Your task to perform on an android device: Open CNN.com Image 0: 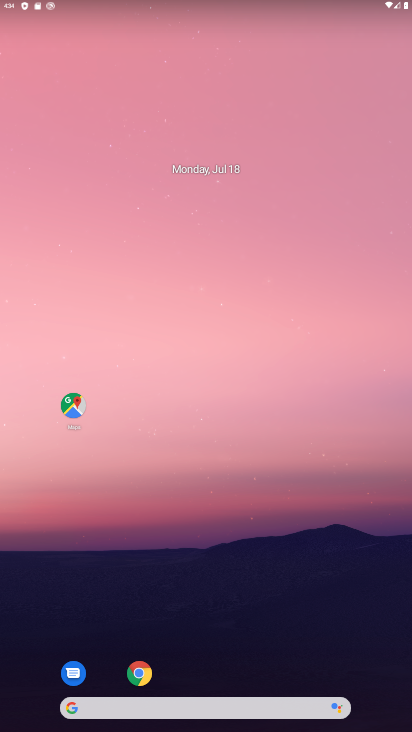
Step 0: click (146, 683)
Your task to perform on an android device: Open CNN.com Image 1: 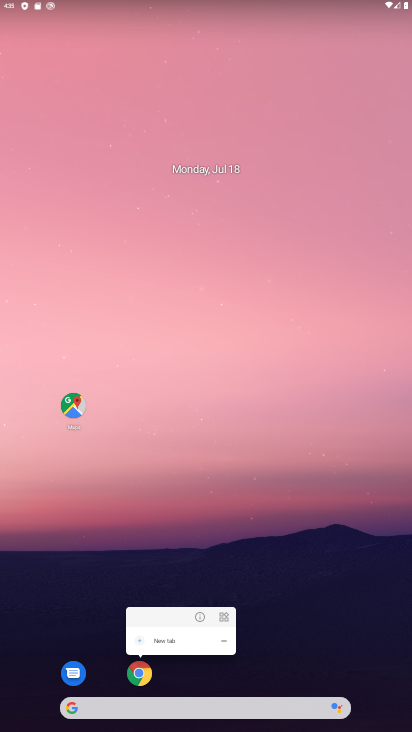
Step 1: click (140, 682)
Your task to perform on an android device: Open CNN.com Image 2: 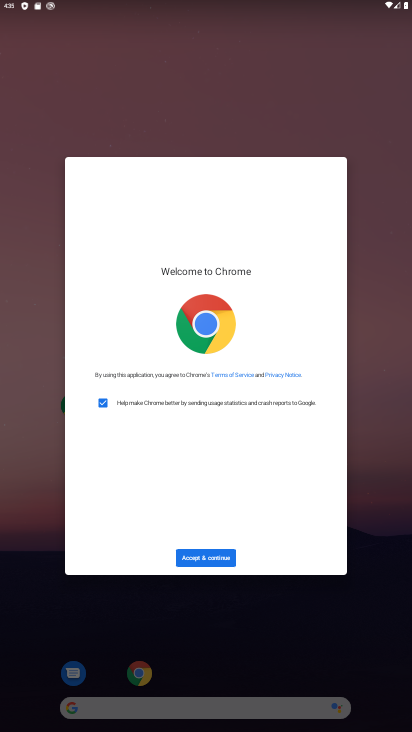
Step 2: click (220, 568)
Your task to perform on an android device: Open CNN.com Image 3: 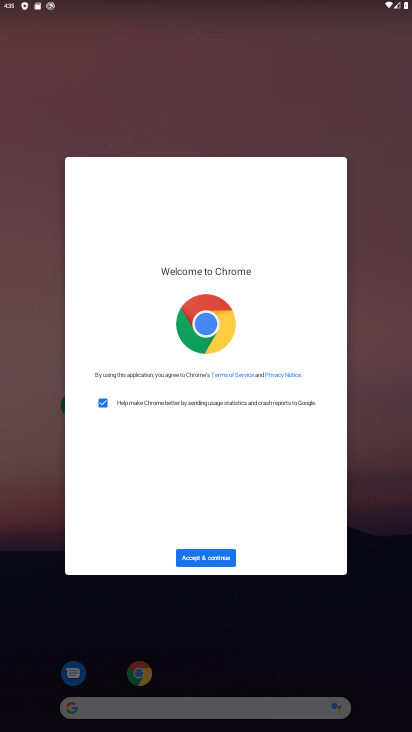
Step 3: click (222, 553)
Your task to perform on an android device: Open CNN.com Image 4: 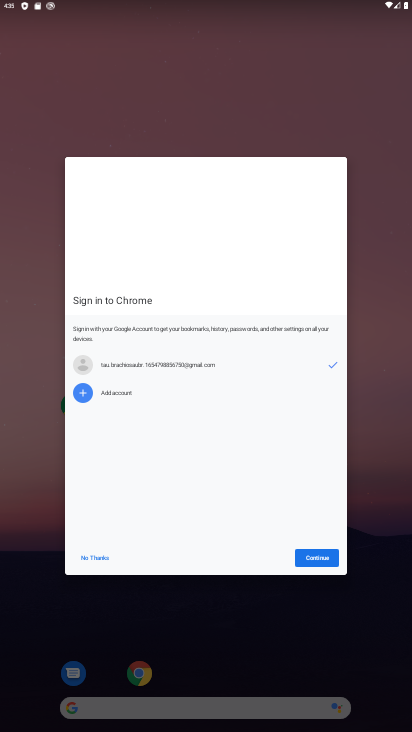
Step 4: click (318, 562)
Your task to perform on an android device: Open CNN.com Image 5: 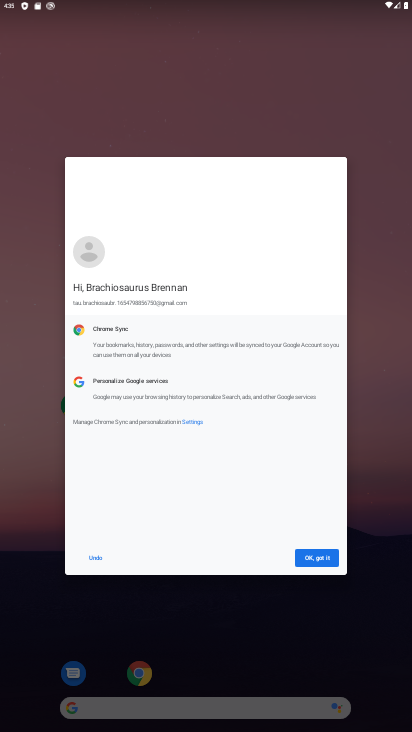
Step 5: click (318, 562)
Your task to perform on an android device: Open CNN.com Image 6: 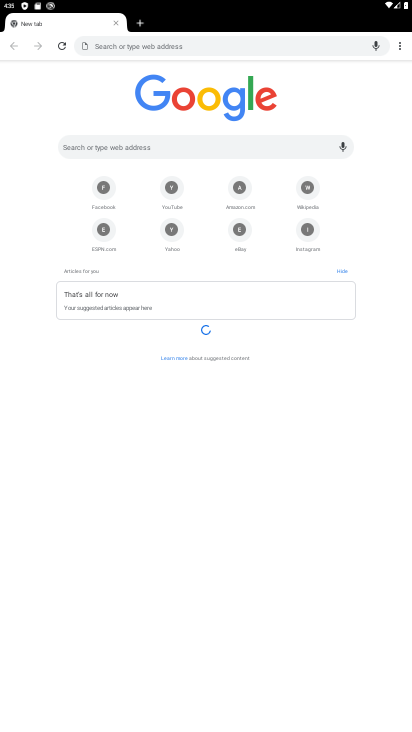
Step 6: click (170, 143)
Your task to perform on an android device: Open CNN.com Image 7: 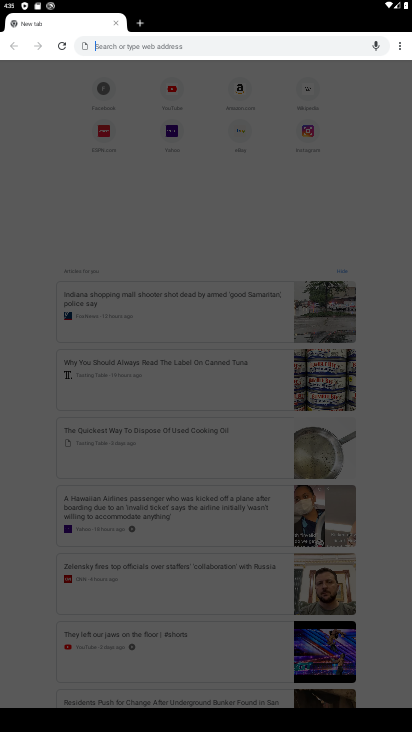
Step 7: type "CNN.com"
Your task to perform on an android device: Open CNN.com Image 8: 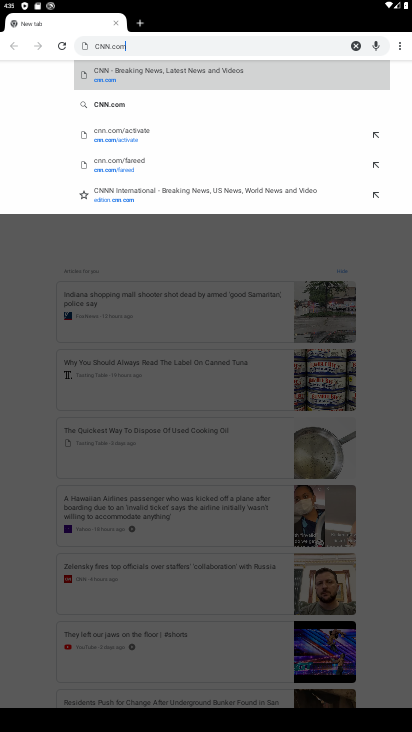
Step 8: click (173, 79)
Your task to perform on an android device: Open CNN.com Image 9: 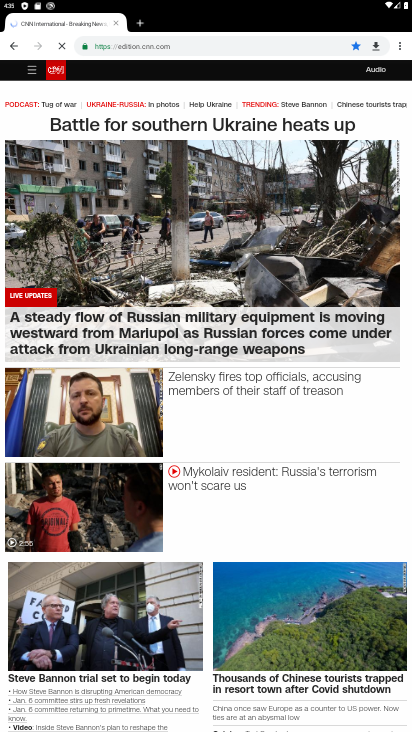
Step 9: task complete